Your task to perform on an android device: find photos in the google photos app Image 0: 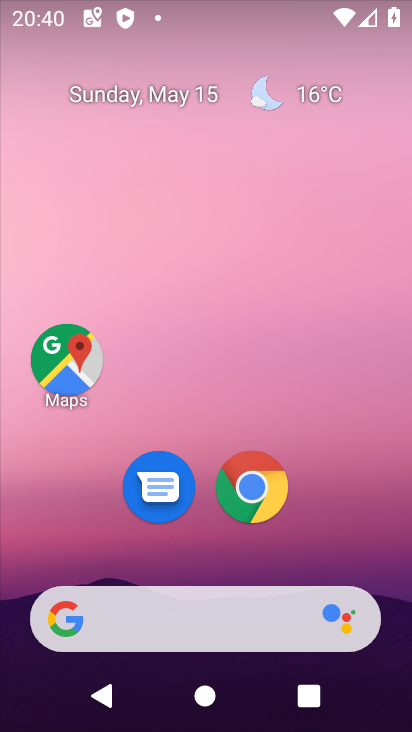
Step 0: drag from (387, 643) to (380, 145)
Your task to perform on an android device: find photos in the google photos app Image 1: 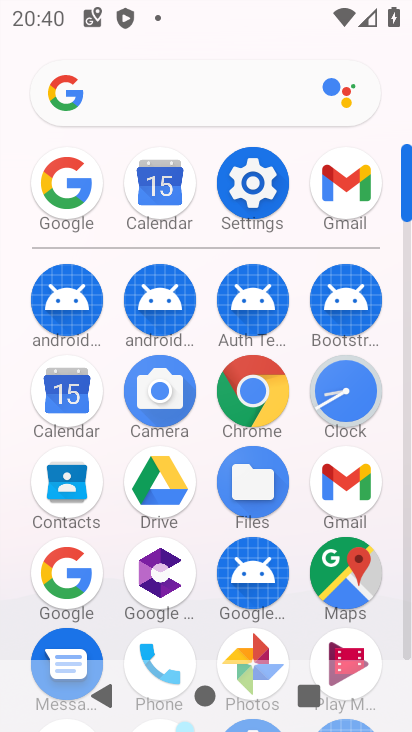
Step 1: drag from (405, 150) to (400, 58)
Your task to perform on an android device: find photos in the google photos app Image 2: 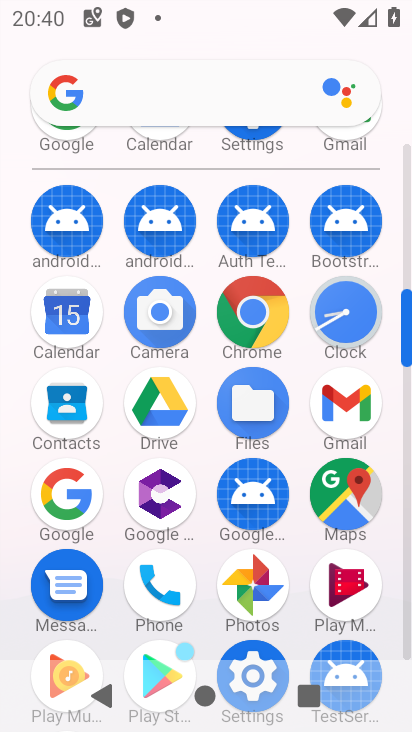
Step 2: click (251, 582)
Your task to perform on an android device: find photos in the google photos app Image 3: 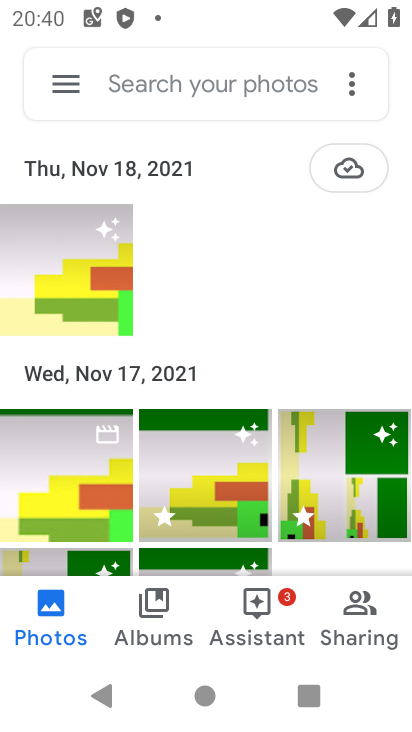
Step 3: click (93, 290)
Your task to perform on an android device: find photos in the google photos app Image 4: 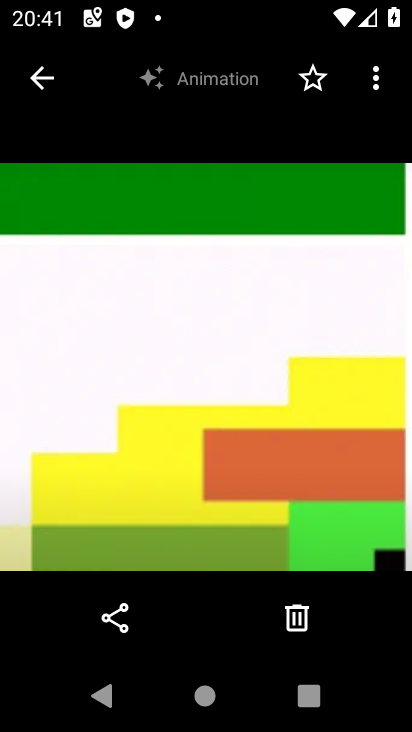
Step 4: click (35, 84)
Your task to perform on an android device: find photos in the google photos app Image 5: 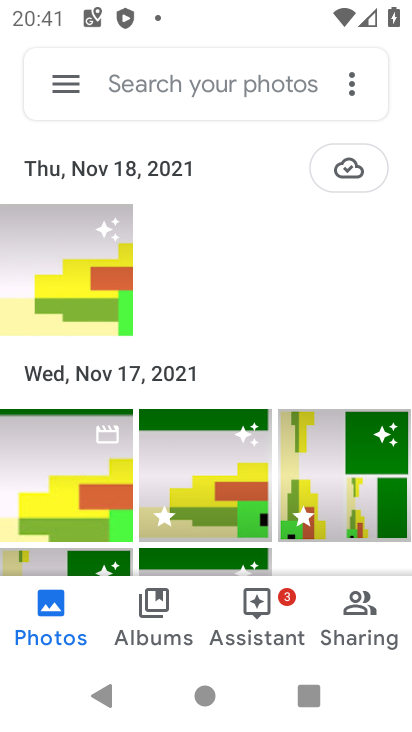
Step 5: task complete